Your task to perform on an android device: check the backup settings in the google photos Image 0: 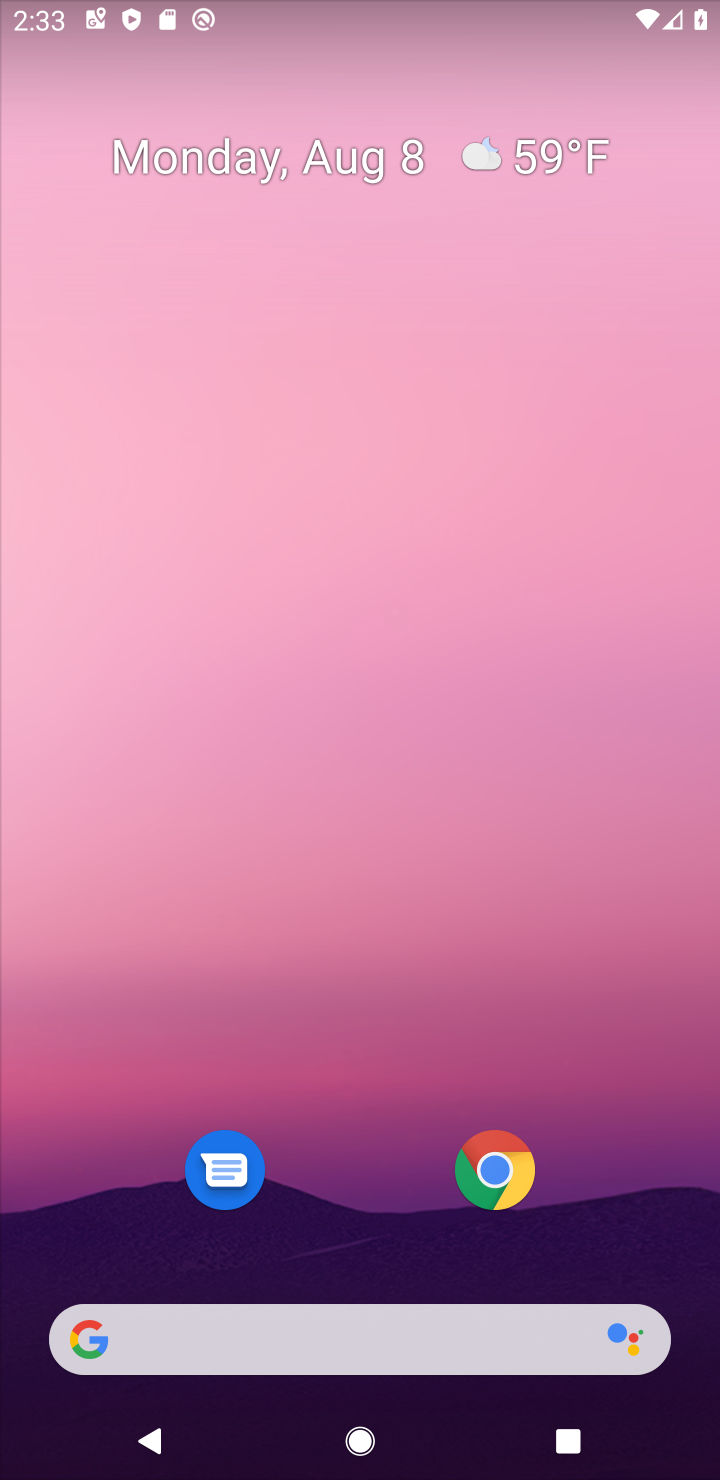
Step 0: drag from (377, 710) to (388, 580)
Your task to perform on an android device: check the backup settings in the google photos Image 1: 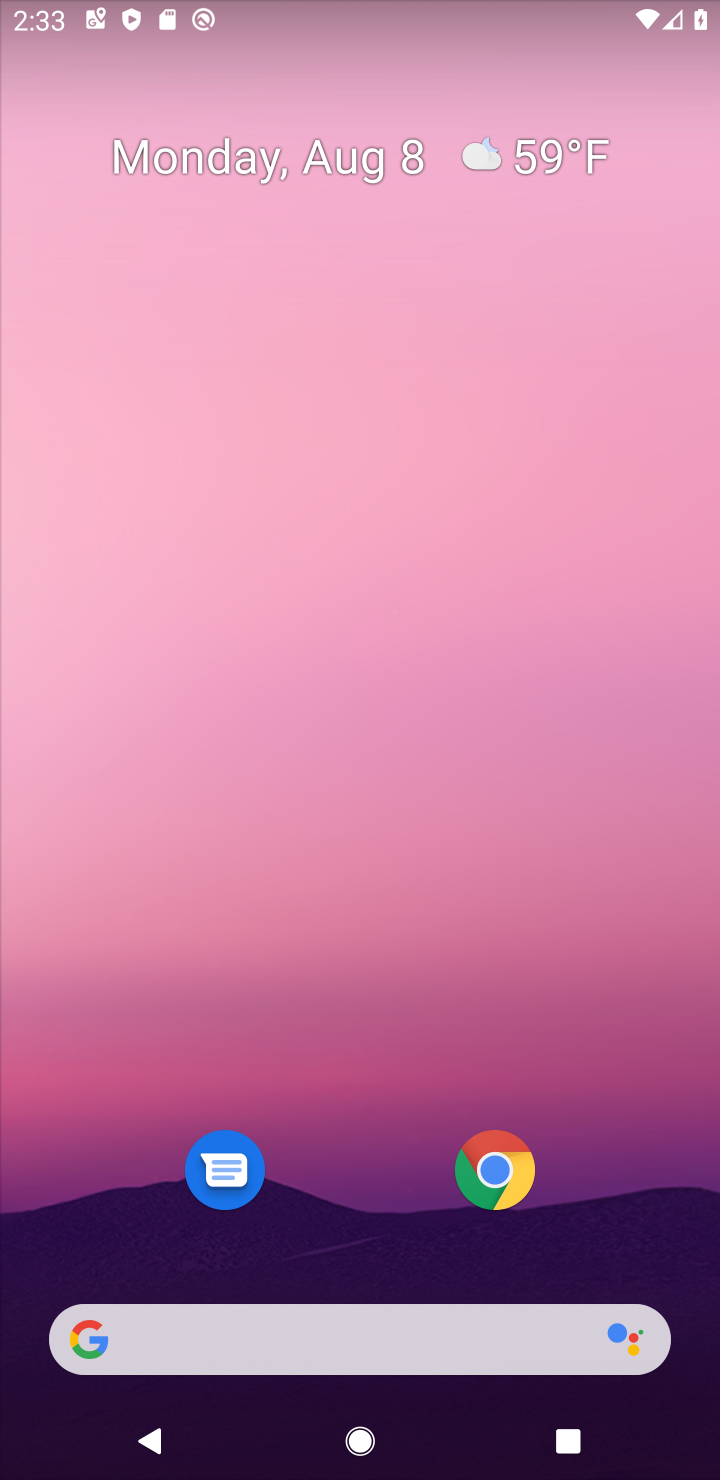
Step 1: drag from (362, 1128) to (362, 383)
Your task to perform on an android device: check the backup settings in the google photos Image 2: 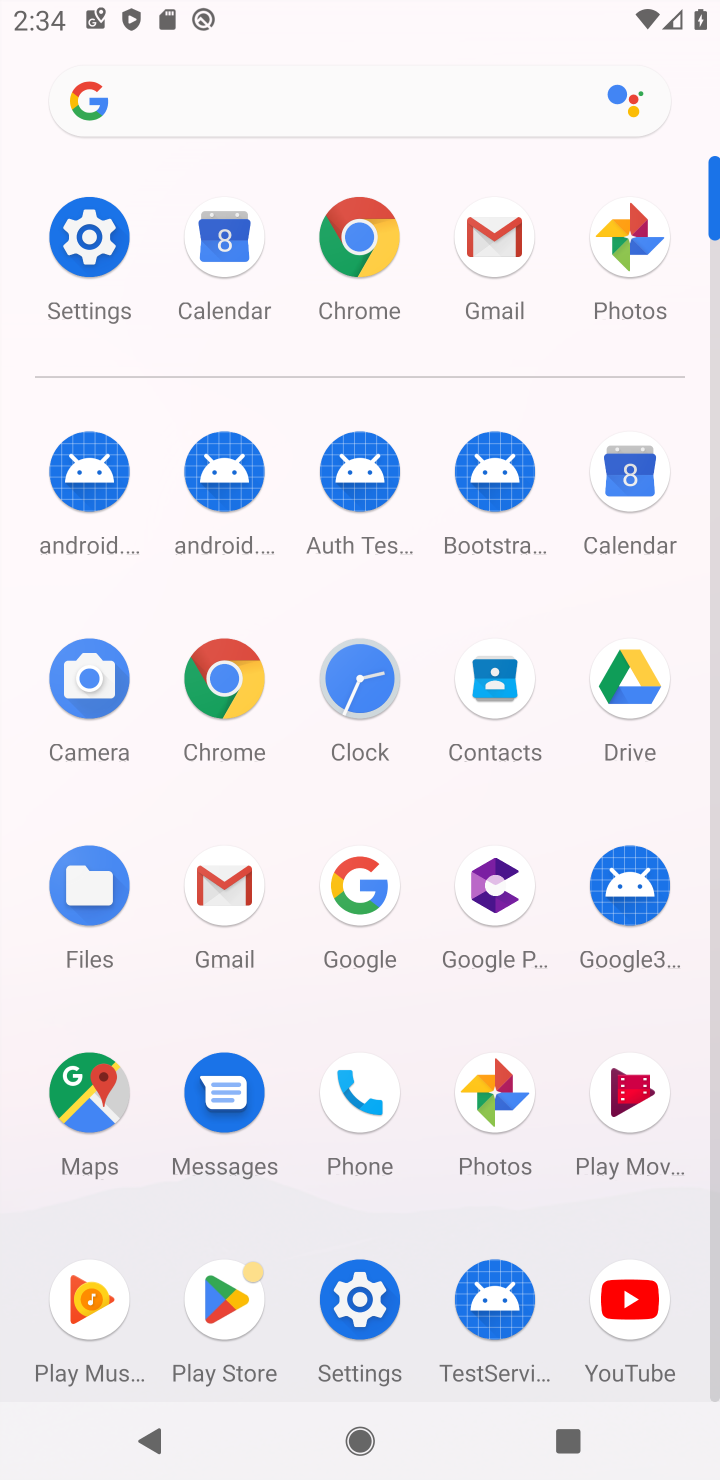
Step 2: click (513, 1101)
Your task to perform on an android device: check the backup settings in the google photos Image 3: 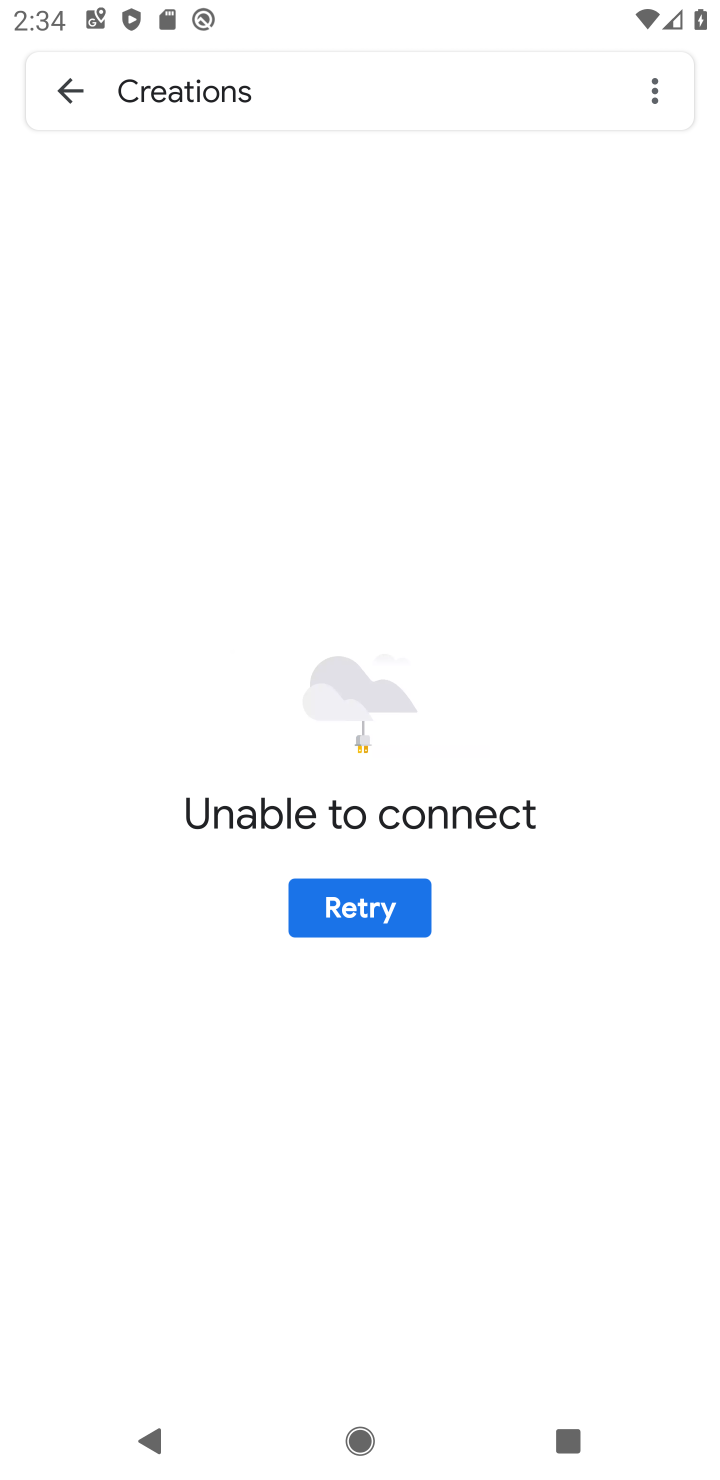
Step 3: click (75, 95)
Your task to perform on an android device: check the backup settings in the google photos Image 4: 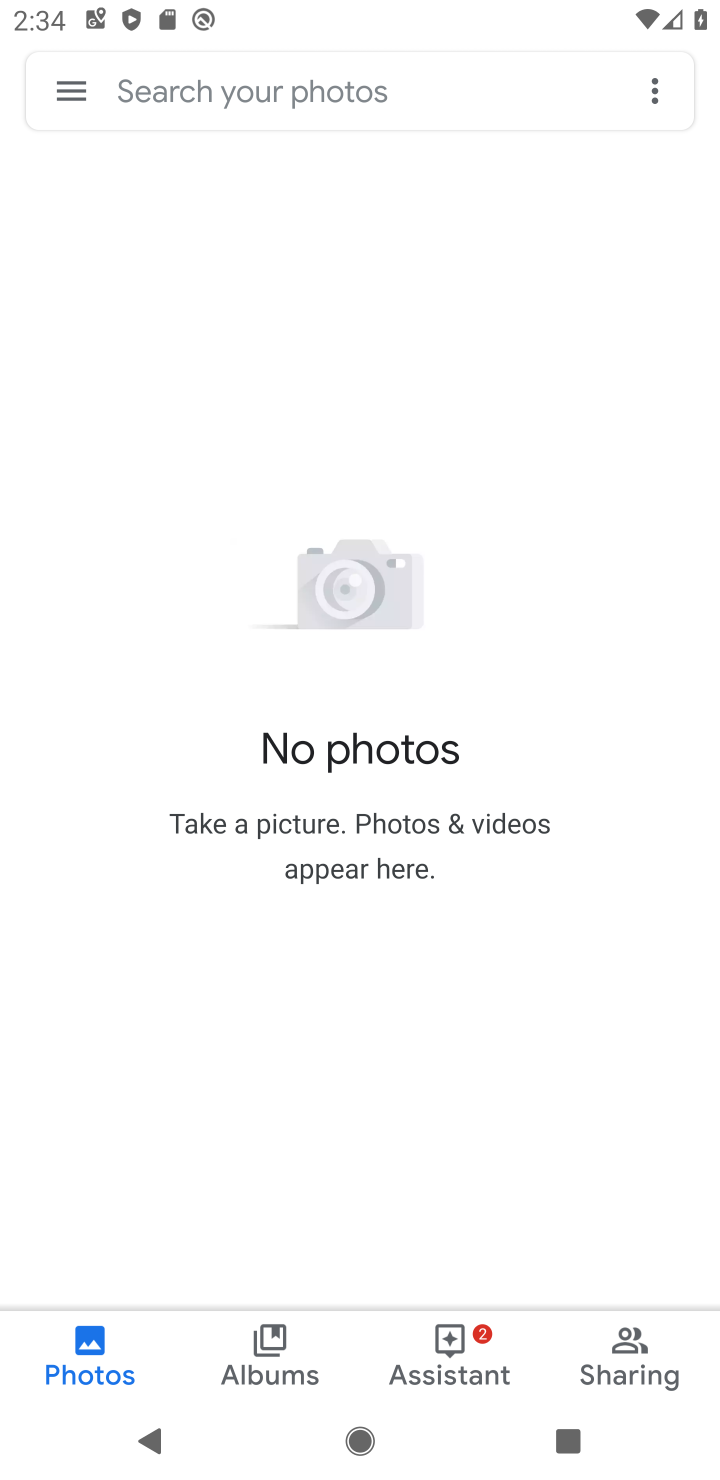
Step 4: click (65, 101)
Your task to perform on an android device: check the backup settings in the google photos Image 5: 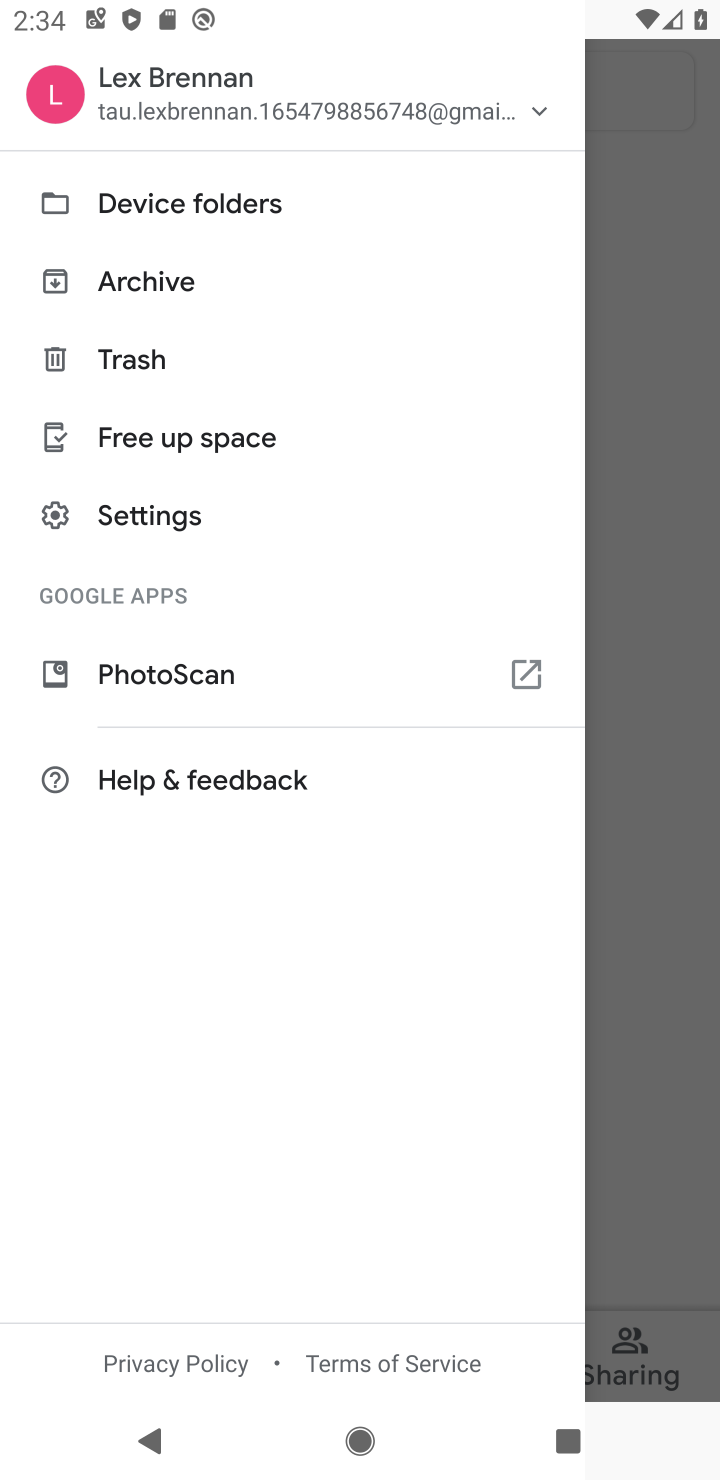
Step 5: click (126, 512)
Your task to perform on an android device: check the backup settings in the google photos Image 6: 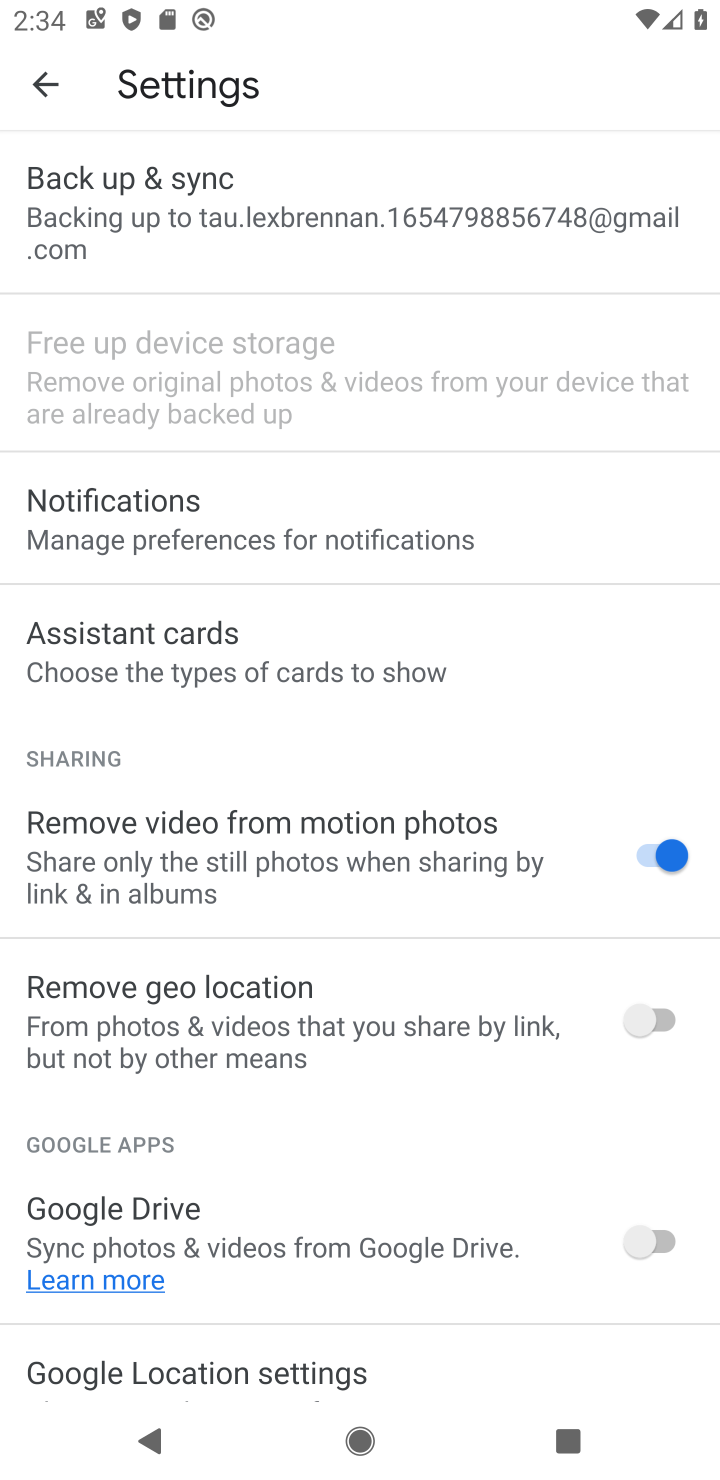
Step 6: click (141, 231)
Your task to perform on an android device: check the backup settings in the google photos Image 7: 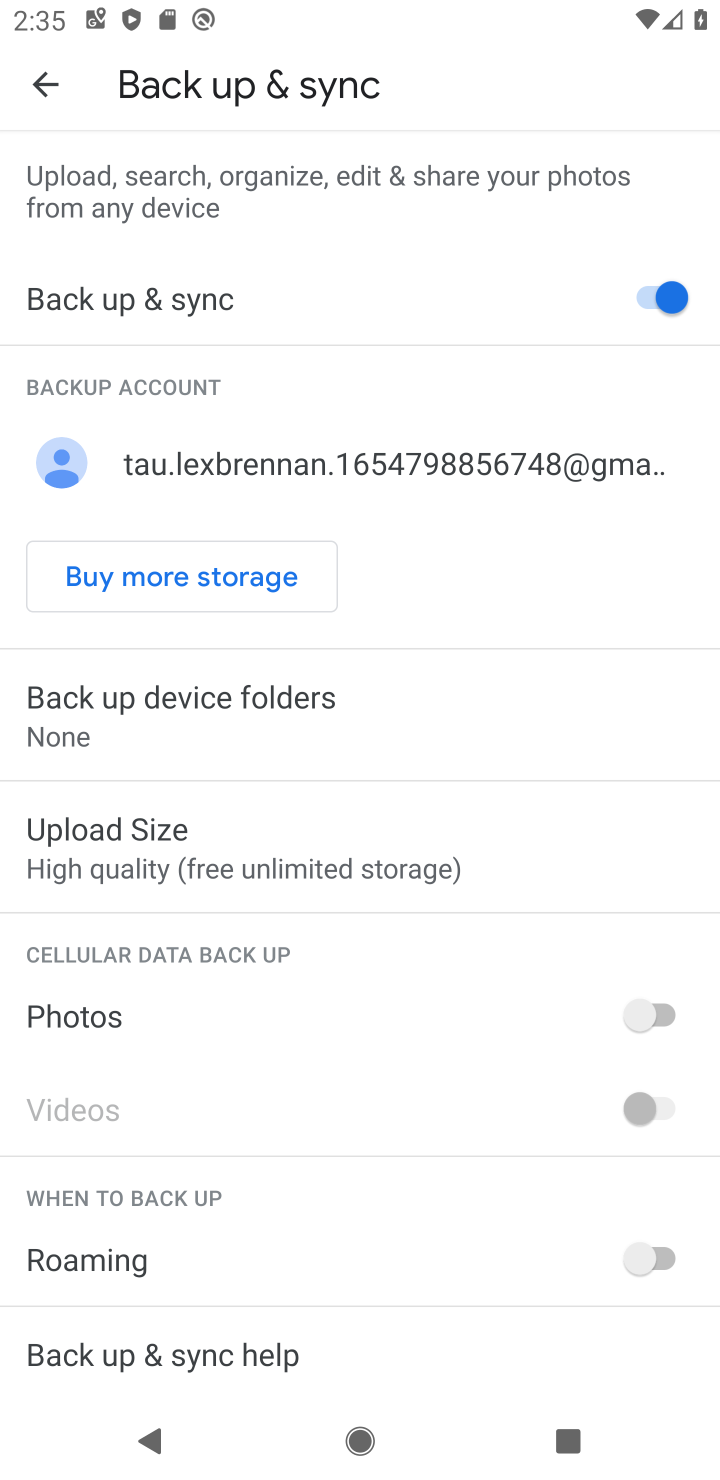
Step 7: task complete